Your task to perform on an android device: Go to notification settings Image 0: 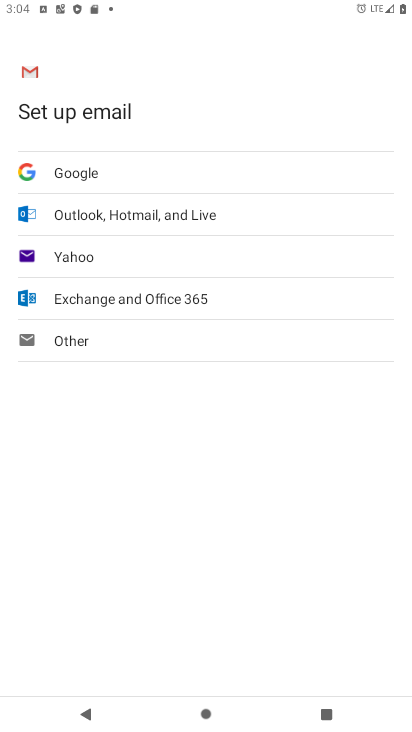
Step 0: press home button
Your task to perform on an android device: Go to notification settings Image 1: 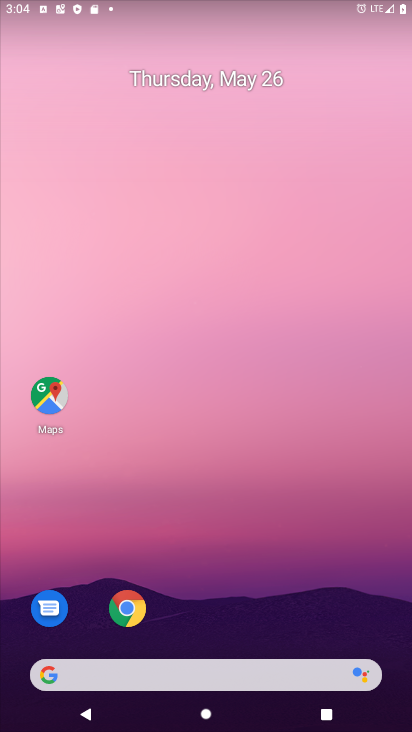
Step 1: drag from (357, 618) to (296, 10)
Your task to perform on an android device: Go to notification settings Image 2: 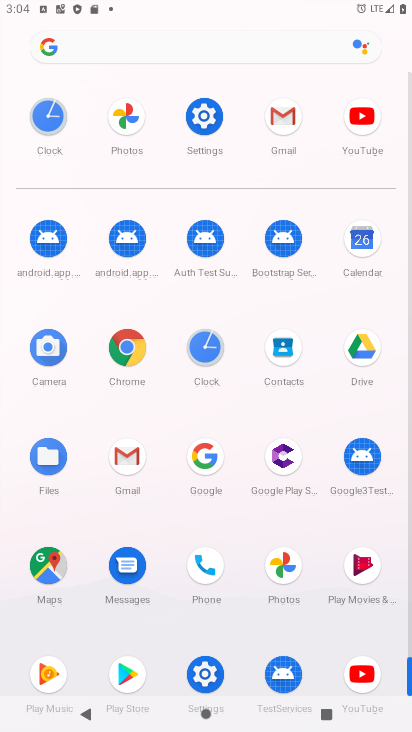
Step 2: click (206, 673)
Your task to perform on an android device: Go to notification settings Image 3: 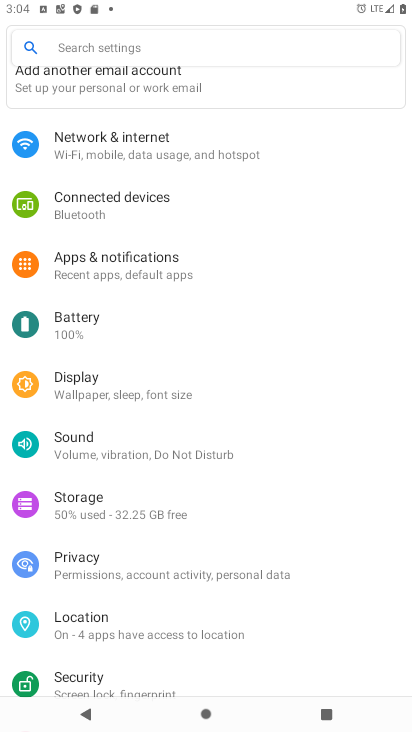
Step 3: click (138, 260)
Your task to perform on an android device: Go to notification settings Image 4: 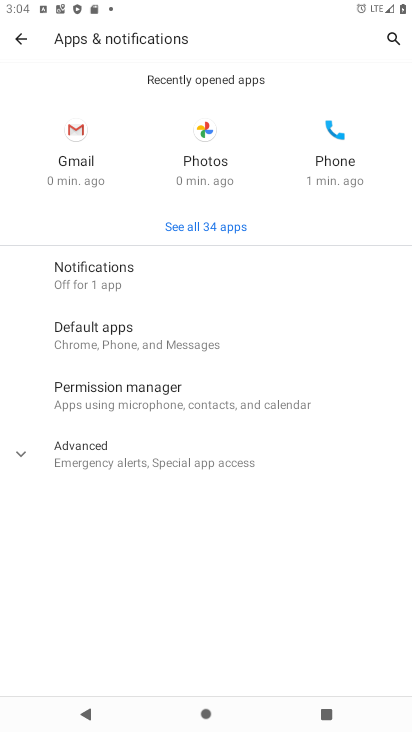
Step 4: click (106, 269)
Your task to perform on an android device: Go to notification settings Image 5: 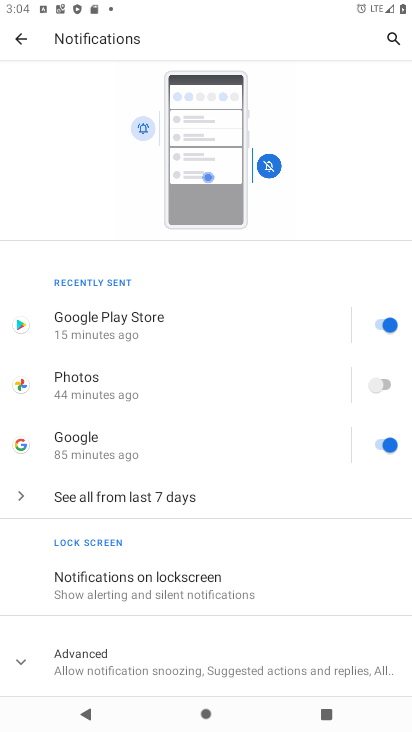
Step 5: drag from (210, 546) to (171, 257)
Your task to perform on an android device: Go to notification settings Image 6: 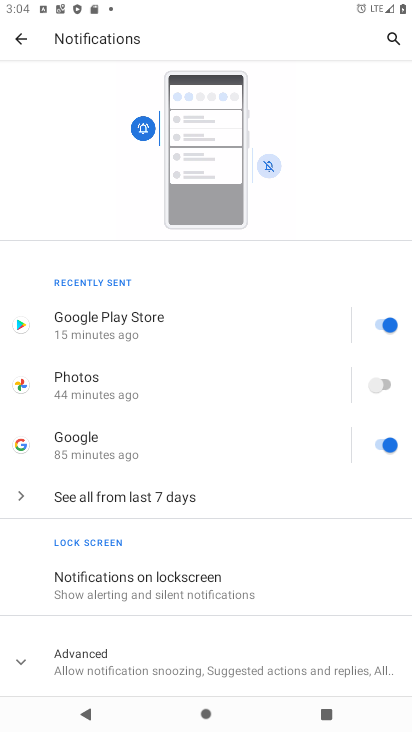
Step 6: click (31, 656)
Your task to perform on an android device: Go to notification settings Image 7: 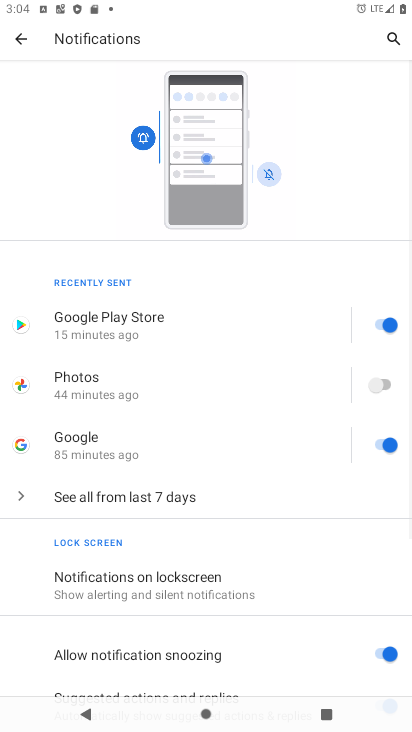
Step 7: task complete